Your task to perform on an android device: add a contact Image 0: 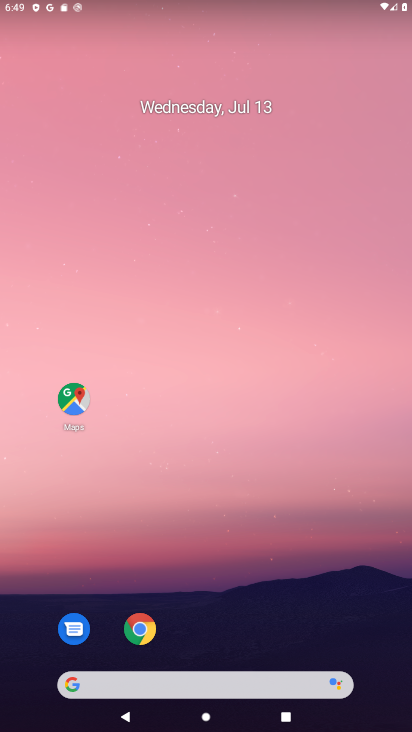
Step 0: drag from (202, 687) to (297, 72)
Your task to perform on an android device: add a contact Image 1: 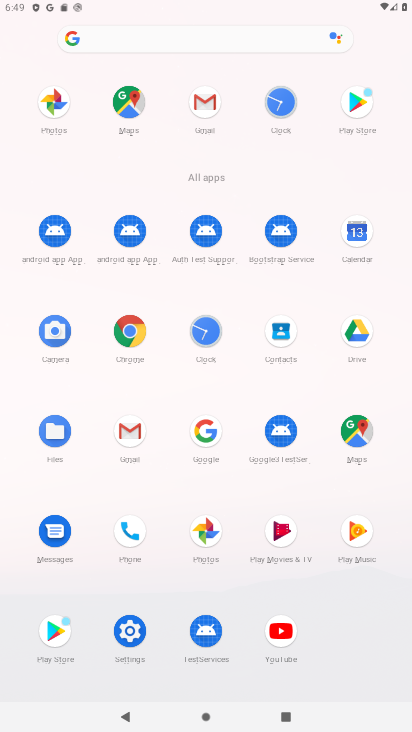
Step 1: click (133, 536)
Your task to perform on an android device: add a contact Image 2: 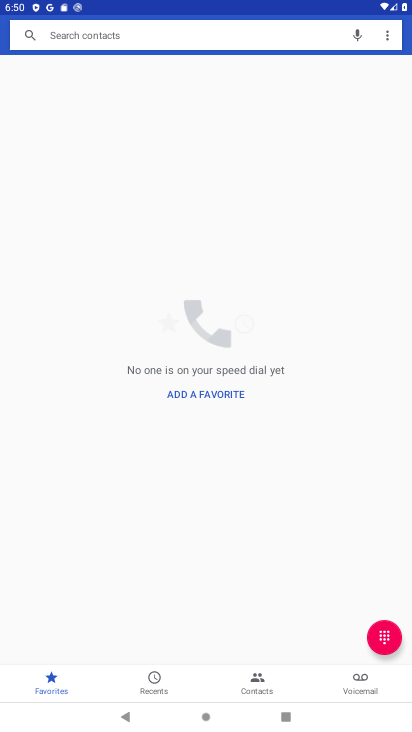
Step 2: click (255, 687)
Your task to perform on an android device: add a contact Image 3: 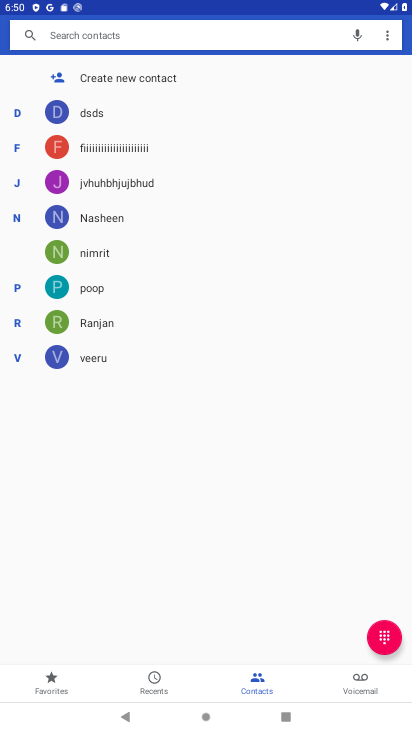
Step 3: click (126, 80)
Your task to perform on an android device: add a contact Image 4: 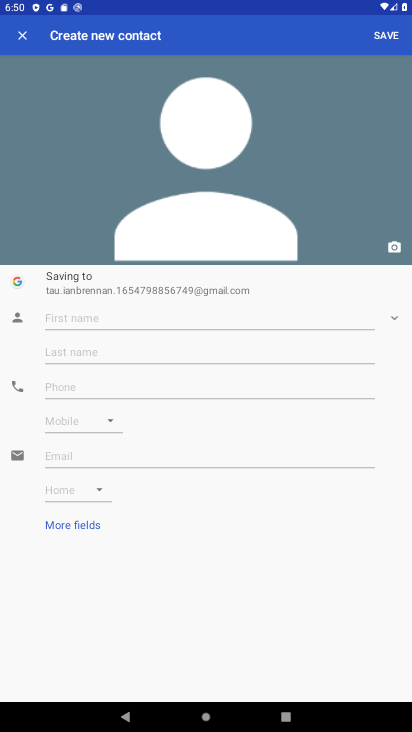
Step 4: click (71, 320)
Your task to perform on an android device: add a contact Image 5: 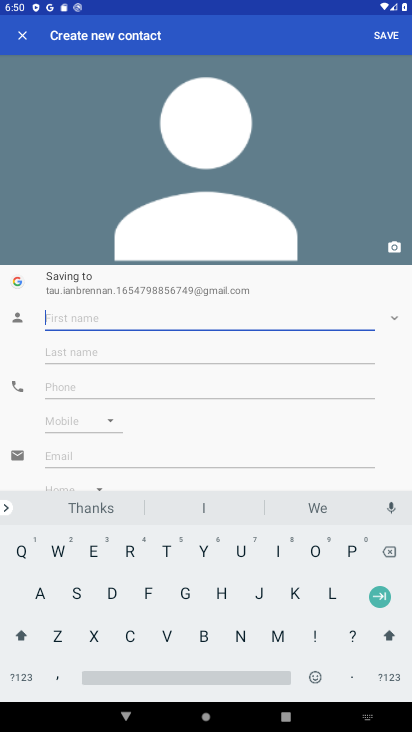
Step 5: click (142, 591)
Your task to perform on an android device: add a contact Image 6: 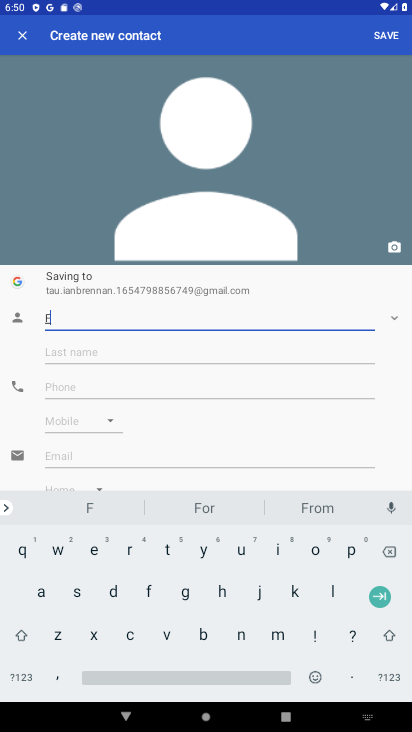
Step 6: click (39, 588)
Your task to perform on an android device: add a contact Image 7: 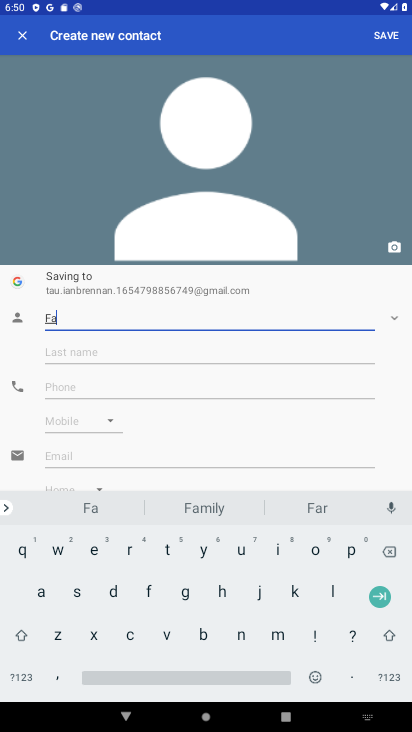
Step 7: click (235, 630)
Your task to perform on an android device: add a contact Image 8: 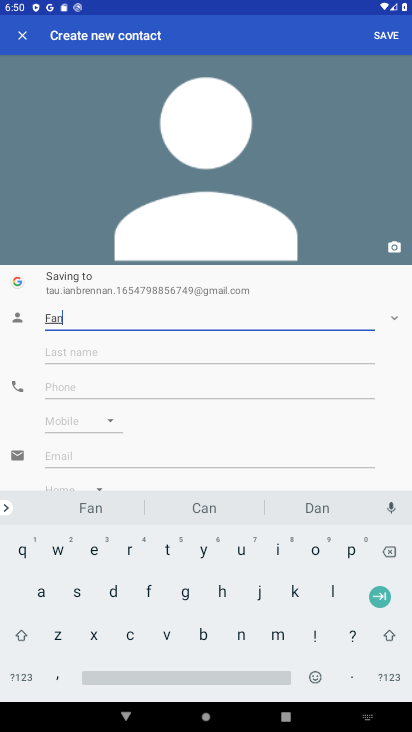
Step 8: click (83, 389)
Your task to perform on an android device: add a contact Image 9: 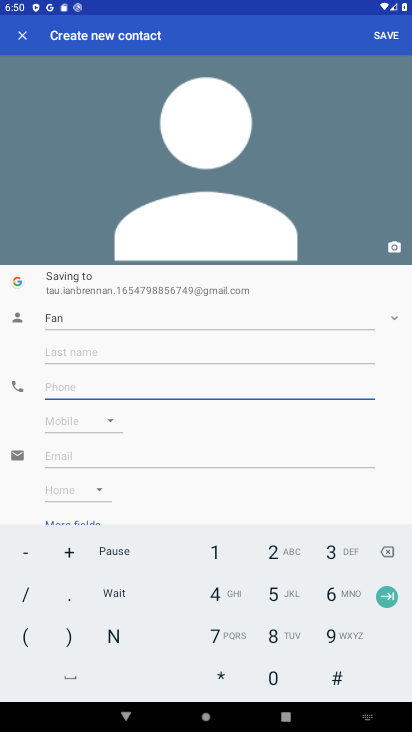
Step 9: click (220, 595)
Your task to perform on an android device: add a contact Image 10: 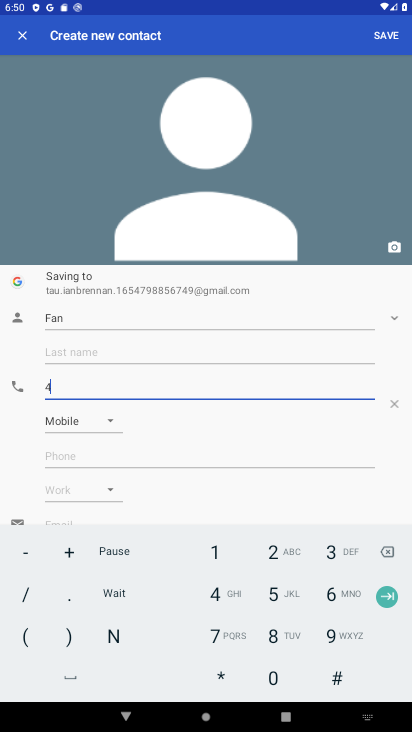
Step 10: click (277, 594)
Your task to perform on an android device: add a contact Image 11: 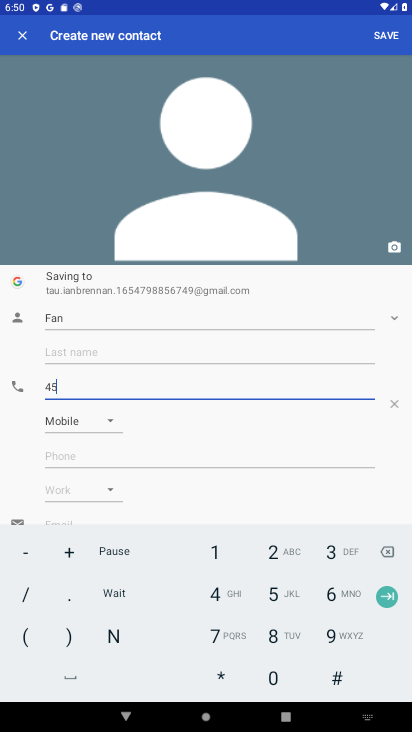
Step 11: click (276, 627)
Your task to perform on an android device: add a contact Image 12: 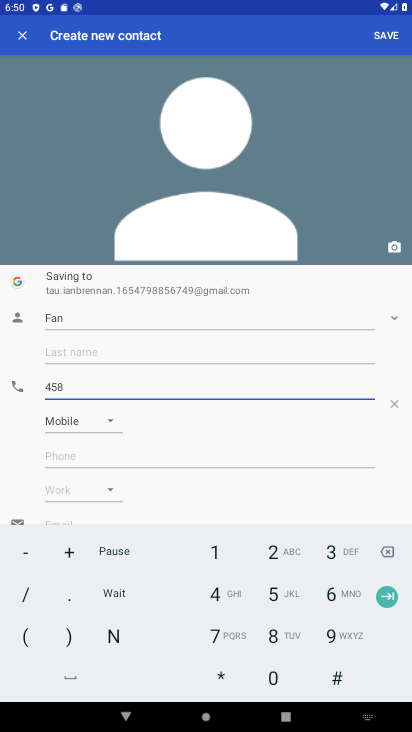
Step 12: click (280, 546)
Your task to perform on an android device: add a contact Image 13: 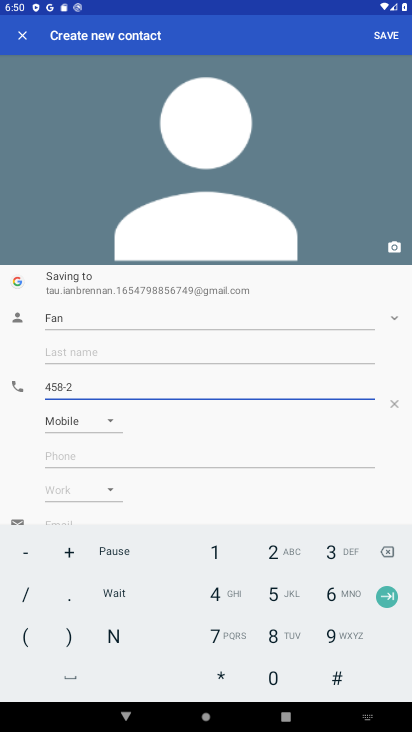
Step 13: click (327, 553)
Your task to perform on an android device: add a contact Image 14: 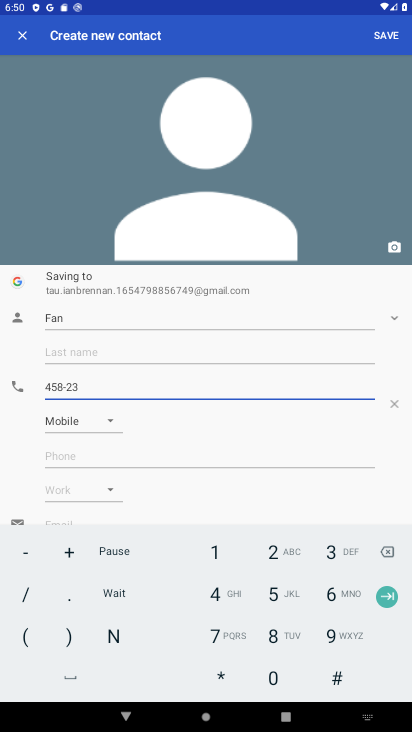
Step 14: click (329, 595)
Your task to perform on an android device: add a contact Image 15: 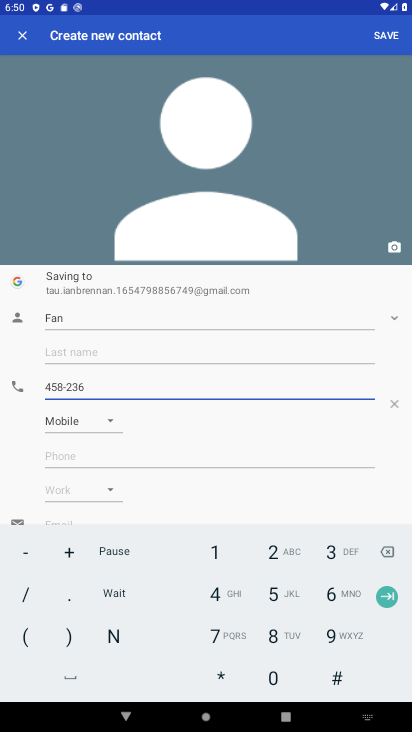
Step 15: click (266, 634)
Your task to perform on an android device: add a contact Image 16: 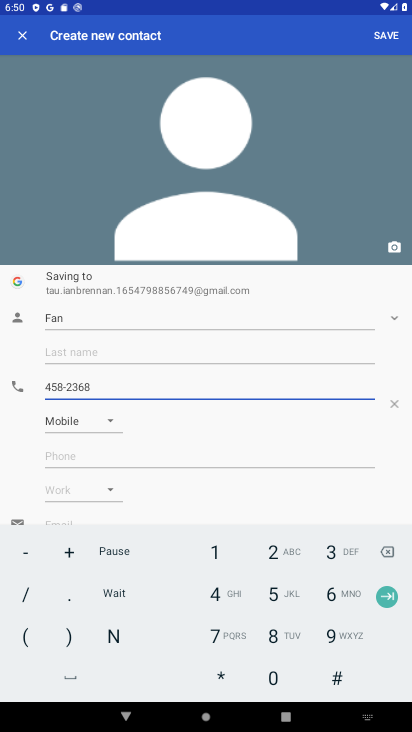
Step 16: click (399, 39)
Your task to perform on an android device: add a contact Image 17: 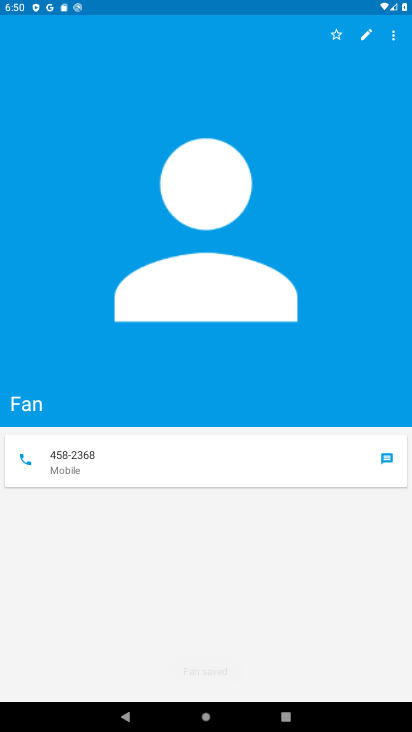
Step 17: task complete